Your task to perform on an android device: stop showing notifications on the lock screen Image 0: 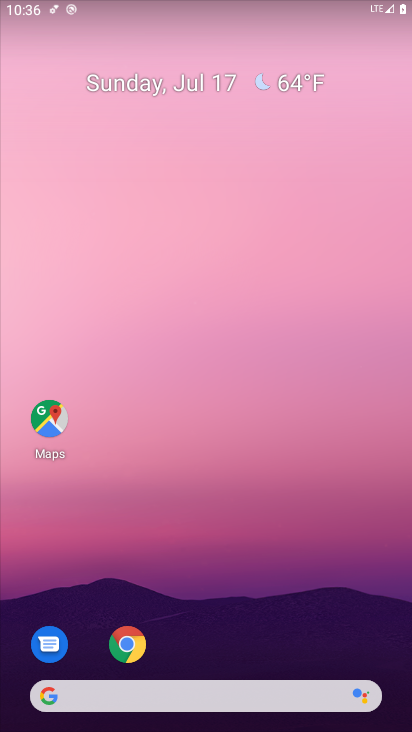
Step 0: press home button
Your task to perform on an android device: stop showing notifications on the lock screen Image 1: 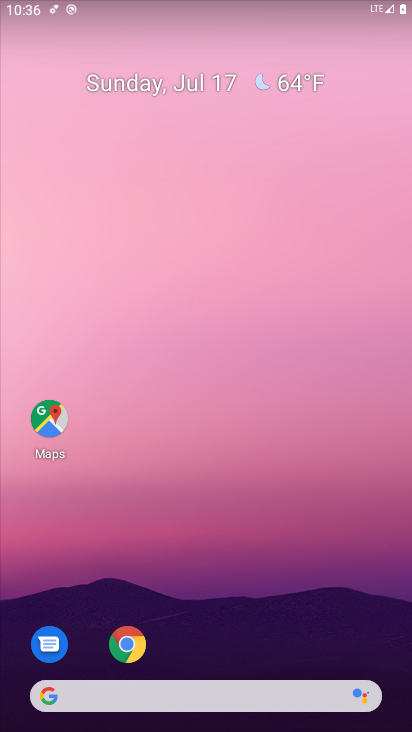
Step 1: drag from (234, 637) to (178, 83)
Your task to perform on an android device: stop showing notifications on the lock screen Image 2: 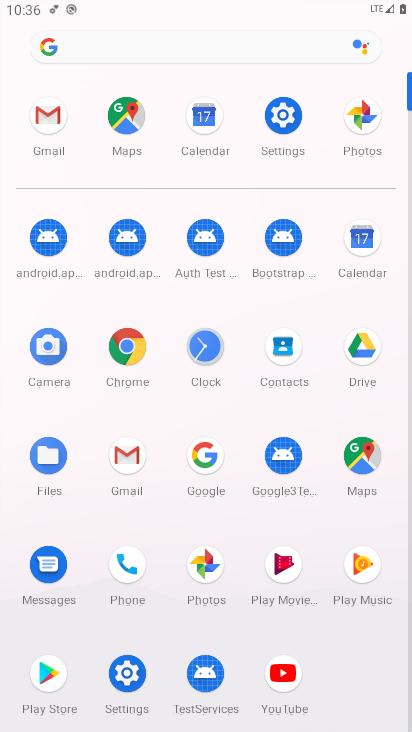
Step 2: click (285, 104)
Your task to perform on an android device: stop showing notifications on the lock screen Image 3: 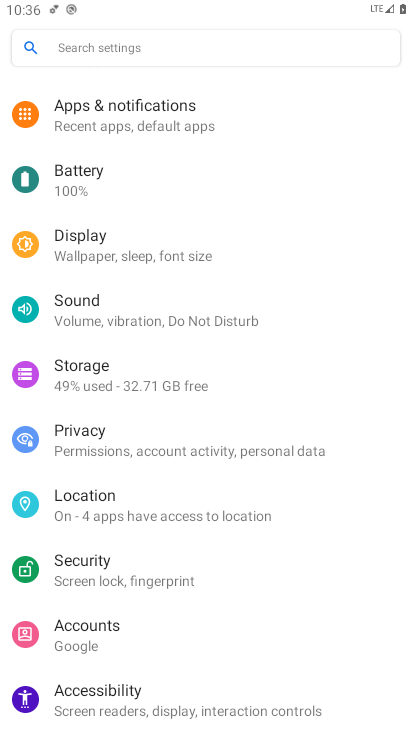
Step 3: click (123, 113)
Your task to perform on an android device: stop showing notifications on the lock screen Image 4: 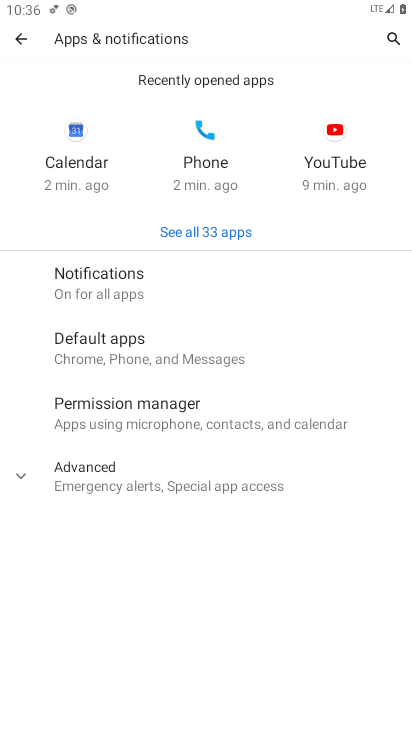
Step 4: click (72, 285)
Your task to perform on an android device: stop showing notifications on the lock screen Image 5: 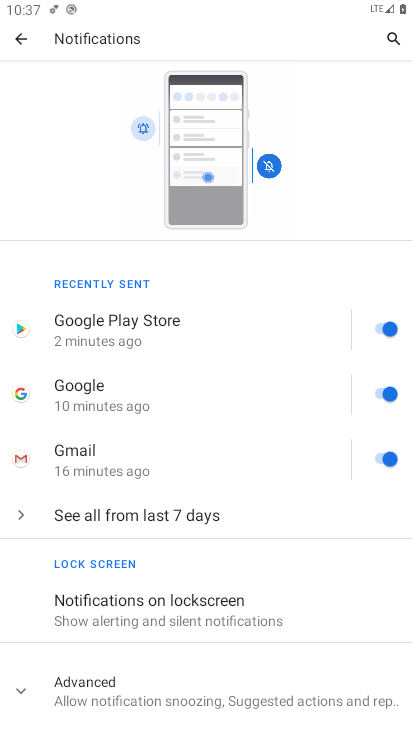
Step 5: click (287, 614)
Your task to perform on an android device: stop showing notifications on the lock screen Image 6: 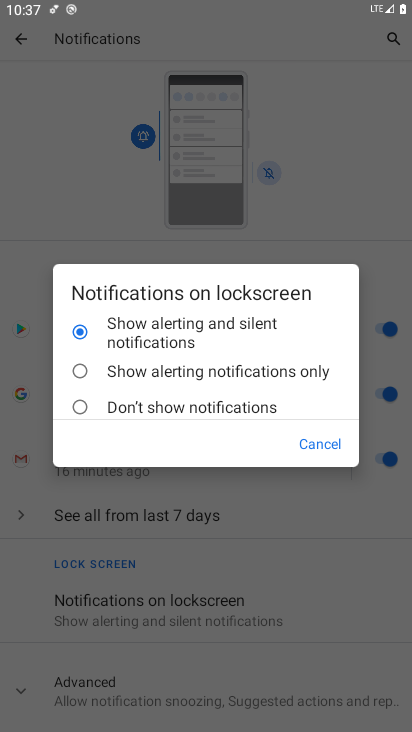
Step 6: click (73, 403)
Your task to perform on an android device: stop showing notifications on the lock screen Image 7: 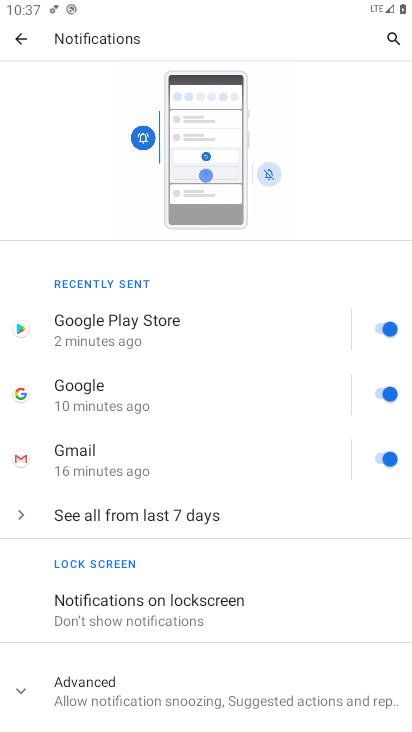
Step 7: task complete